Your task to perform on an android device: turn off picture-in-picture Image 0: 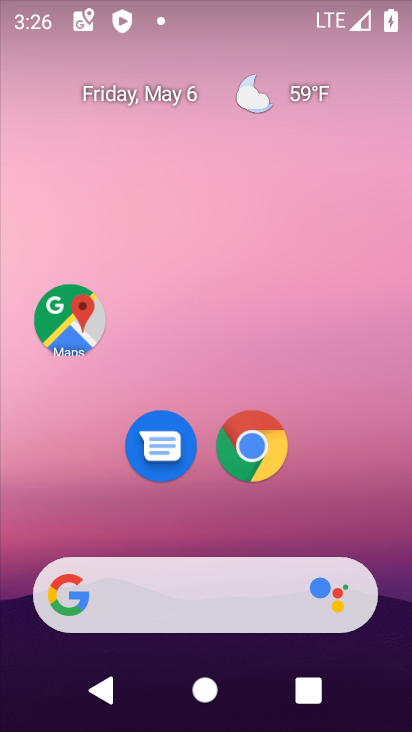
Step 0: drag from (295, 500) to (300, 59)
Your task to perform on an android device: turn off picture-in-picture Image 1: 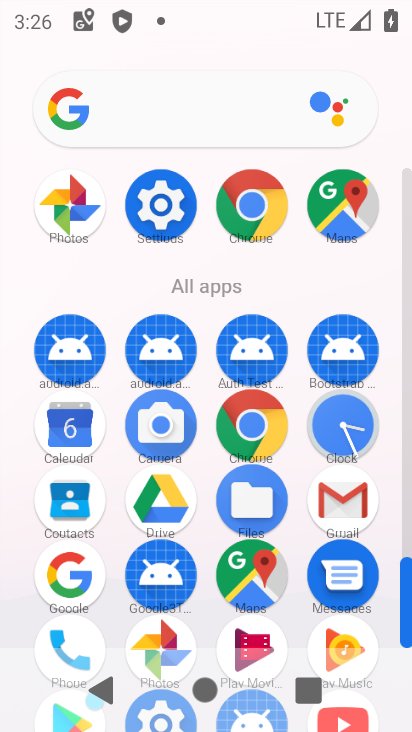
Step 1: click (169, 209)
Your task to perform on an android device: turn off picture-in-picture Image 2: 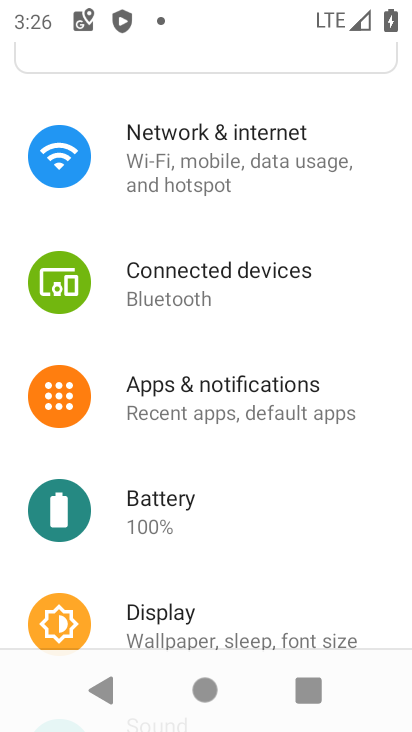
Step 2: drag from (284, 553) to (301, 288)
Your task to perform on an android device: turn off picture-in-picture Image 3: 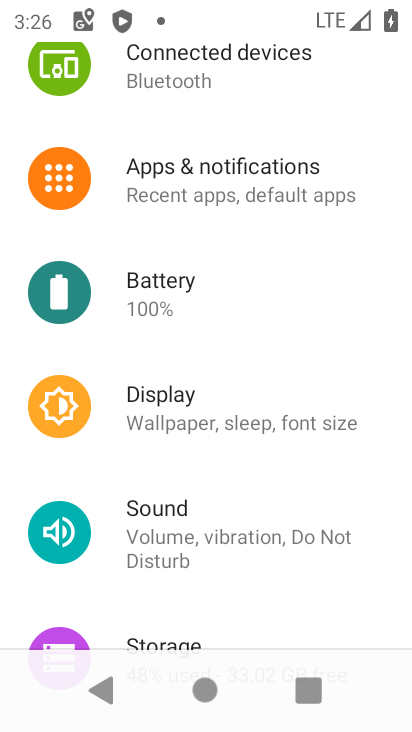
Step 3: drag from (313, 607) to (318, 218)
Your task to perform on an android device: turn off picture-in-picture Image 4: 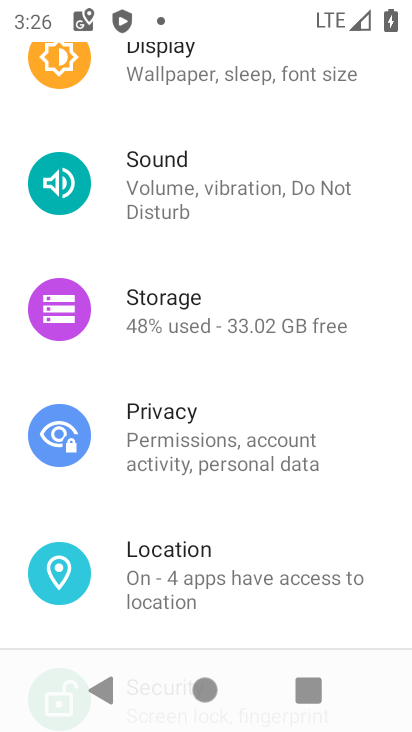
Step 4: click (297, 625)
Your task to perform on an android device: turn off picture-in-picture Image 5: 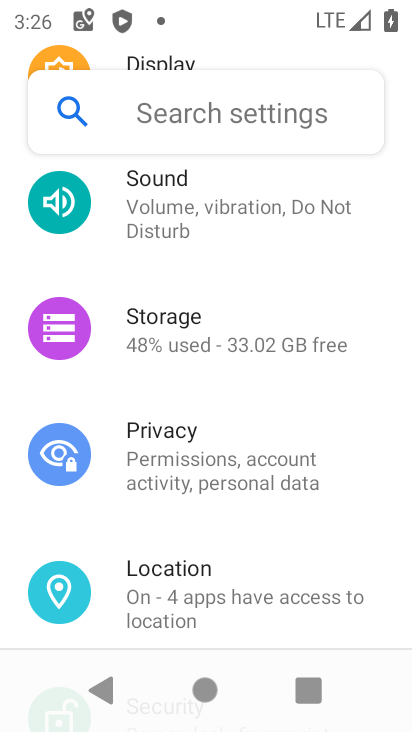
Step 5: drag from (282, 190) to (260, 625)
Your task to perform on an android device: turn off picture-in-picture Image 6: 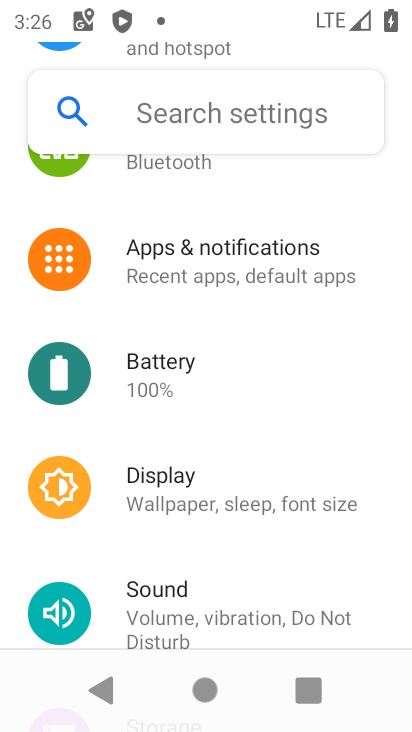
Step 6: click (235, 271)
Your task to perform on an android device: turn off picture-in-picture Image 7: 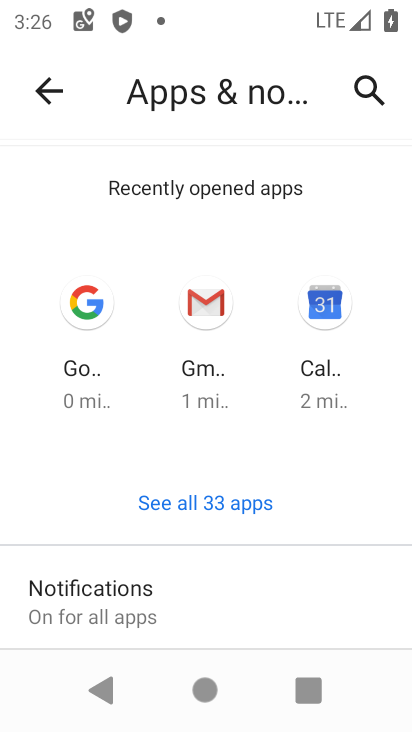
Step 7: drag from (232, 590) to (240, 195)
Your task to perform on an android device: turn off picture-in-picture Image 8: 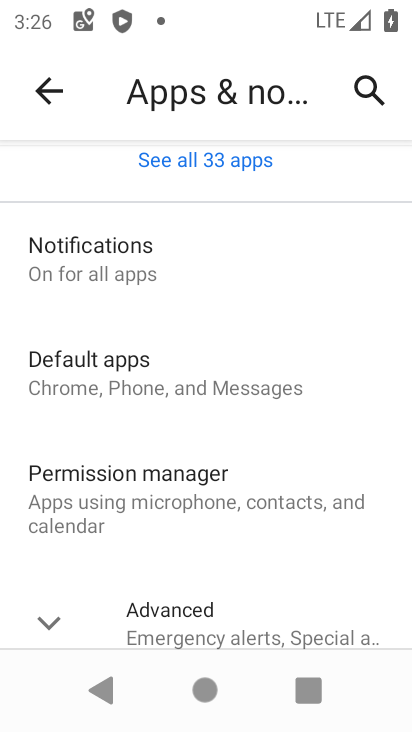
Step 8: drag from (231, 596) to (238, 308)
Your task to perform on an android device: turn off picture-in-picture Image 9: 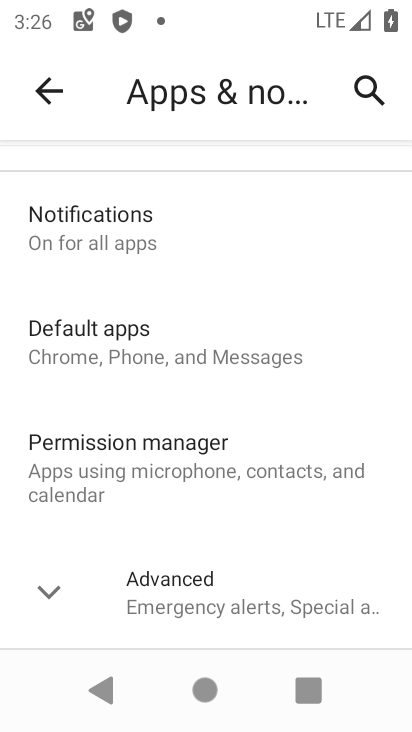
Step 9: click (43, 598)
Your task to perform on an android device: turn off picture-in-picture Image 10: 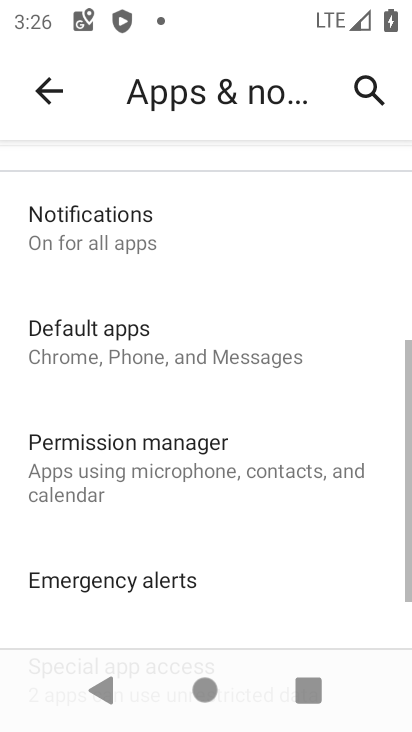
Step 10: drag from (237, 589) to (240, 219)
Your task to perform on an android device: turn off picture-in-picture Image 11: 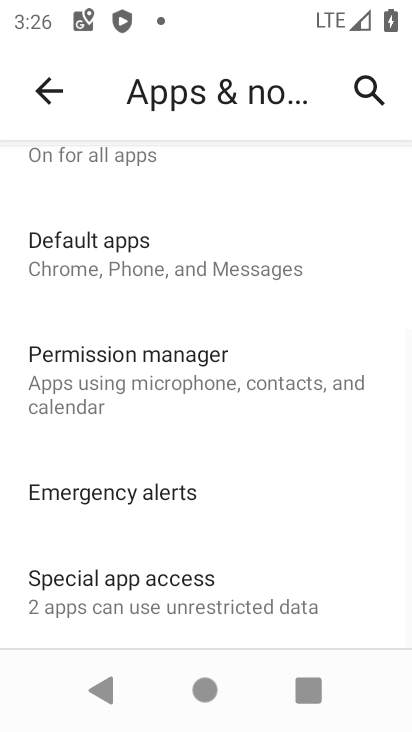
Step 11: click (163, 595)
Your task to perform on an android device: turn off picture-in-picture Image 12: 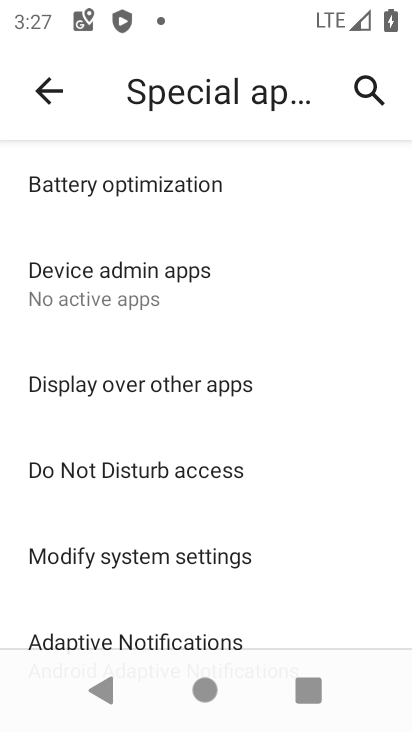
Step 12: drag from (258, 572) to (250, 190)
Your task to perform on an android device: turn off picture-in-picture Image 13: 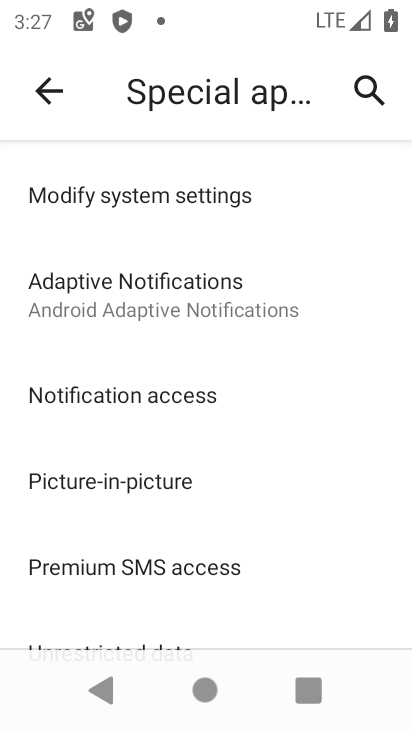
Step 13: click (183, 494)
Your task to perform on an android device: turn off picture-in-picture Image 14: 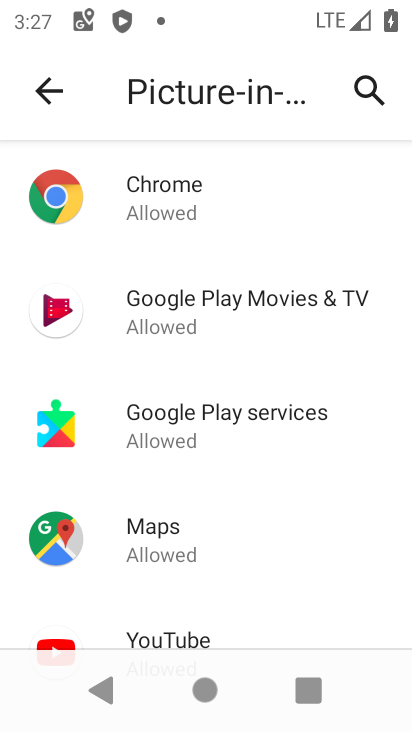
Step 14: click (199, 215)
Your task to perform on an android device: turn off picture-in-picture Image 15: 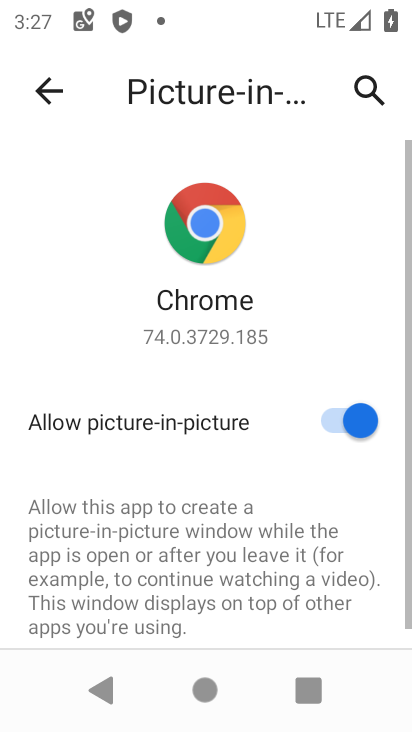
Step 15: click (354, 419)
Your task to perform on an android device: turn off picture-in-picture Image 16: 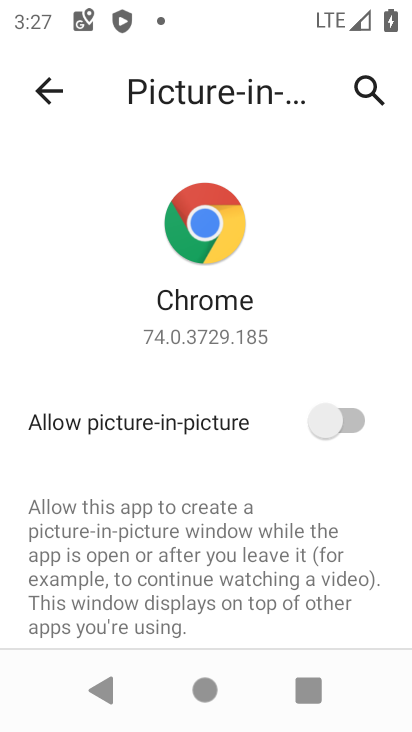
Step 16: task complete